Your task to perform on an android device: Open the calendar app, open the side menu, and click the "Day" option Image 0: 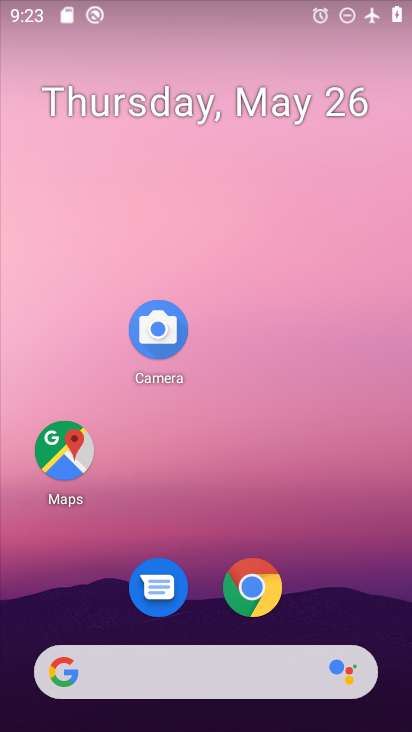
Step 0: drag from (207, 613) to (208, 197)
Your task to perform on an android device: Open the calendar app, open the side menu, and click the "Day" option Image 1: 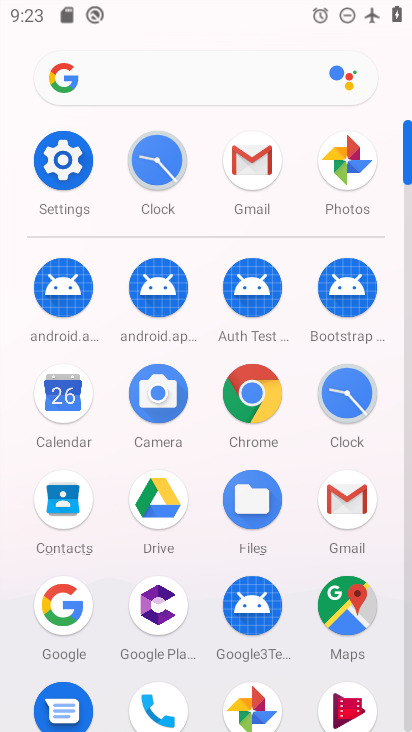
Step 1: click (71, 417)
Your task to perform on an android device: Open the calendar app, open the side menu, and click the "Day" option Image 2: 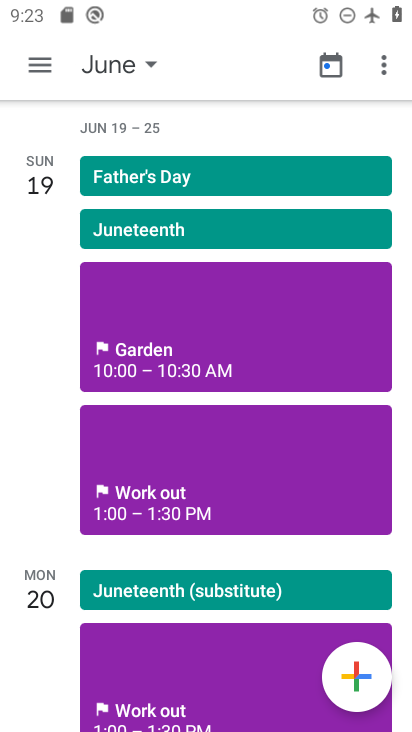
Step 2: click (36, 67)
Your task to perform on an android device: Open the calendar app, open the side menu, and click the "Day" option Image 3: 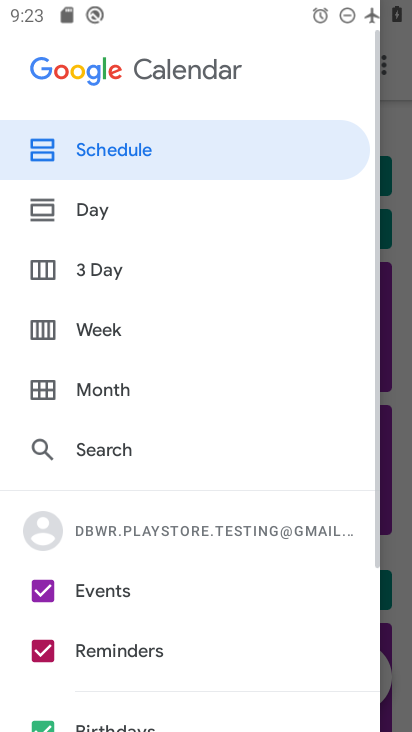
Step 3: click (136, 210)
Your task to perform on an android device: Open the calendar app, open the side menu, and click the "Day" option Image 4: 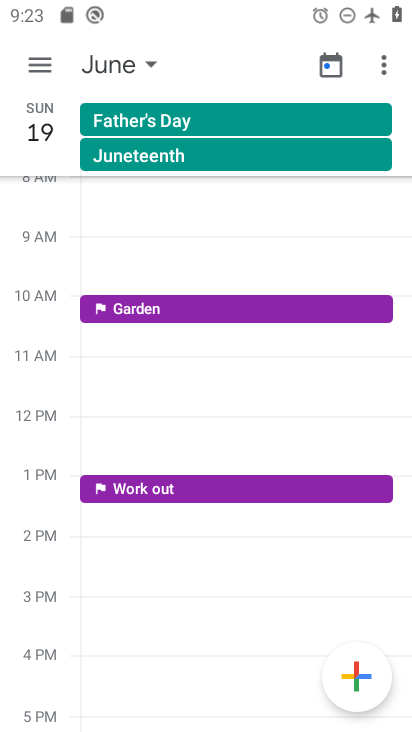
Step 4: task complete